Your task to perform on an android device: Open Amazon Image 0: 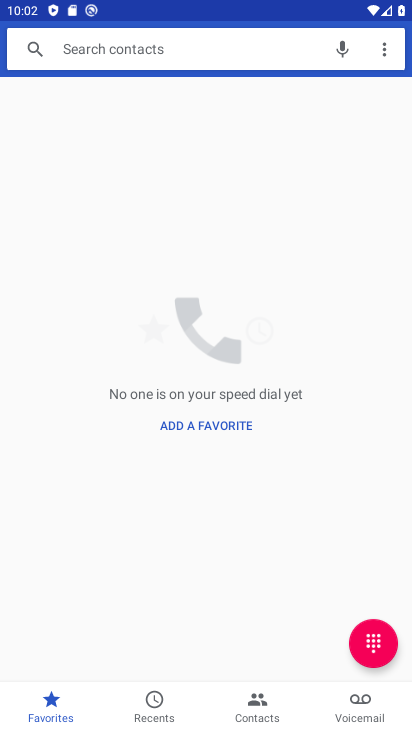
Step 0: click (221, 44)
Your task to perform on an android device: Open Amazon Image 1: 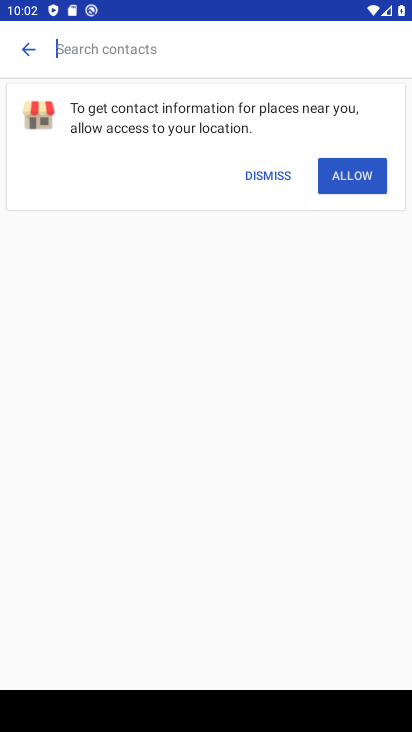
Step 1: press home button
Your task to perform on an android device: Open Amazon Image 2: 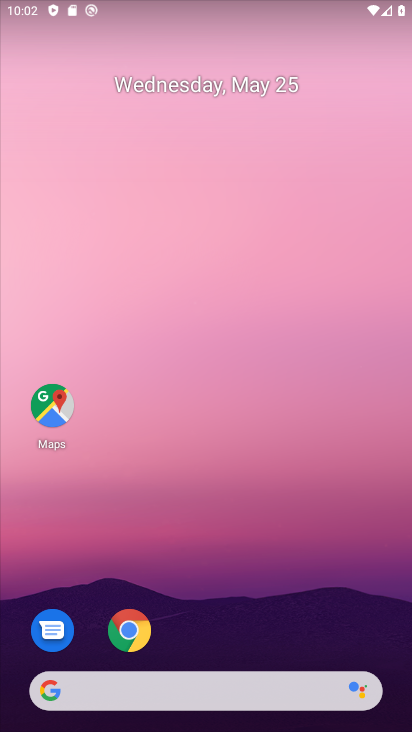
Step 2: click (125, 624)
Your task to perform on an android device: Open Amazon Image 3: 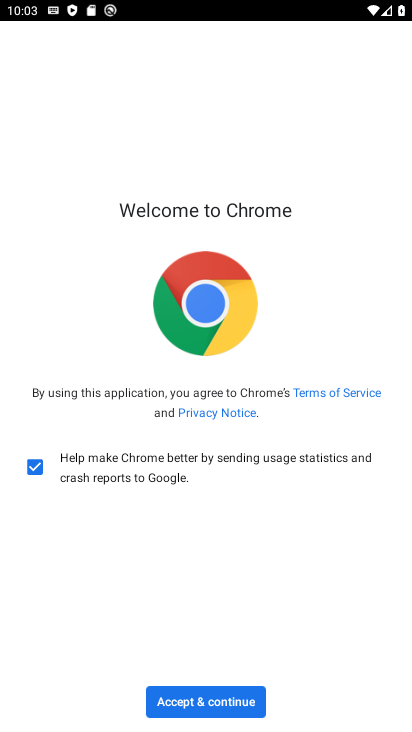
Step 3: click (158, 690)
Your task to perform on an android device: Open Amazon Image 4: 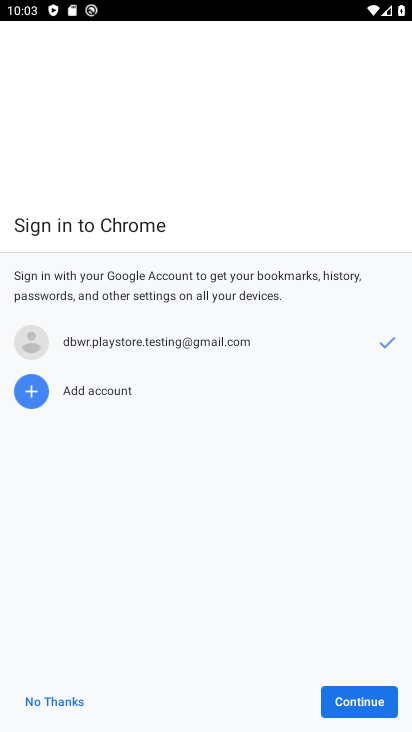
Step 4: click (327, 702)
Your task to perform on an android device: Open Amazon Image 5: 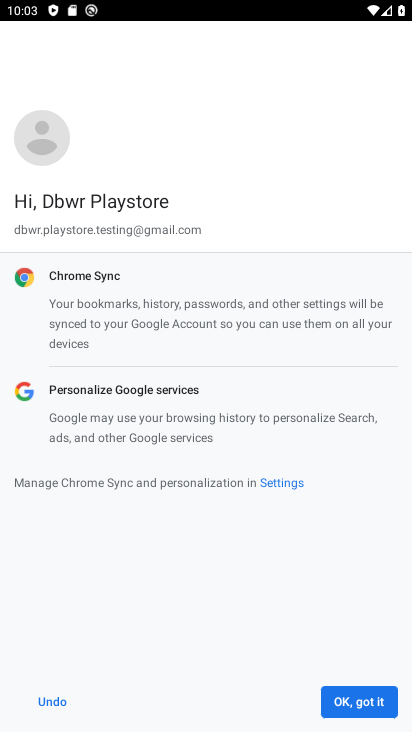
Step 5: click (336, 702)
Your task to perform on an android device: Open Amazon Image 6: 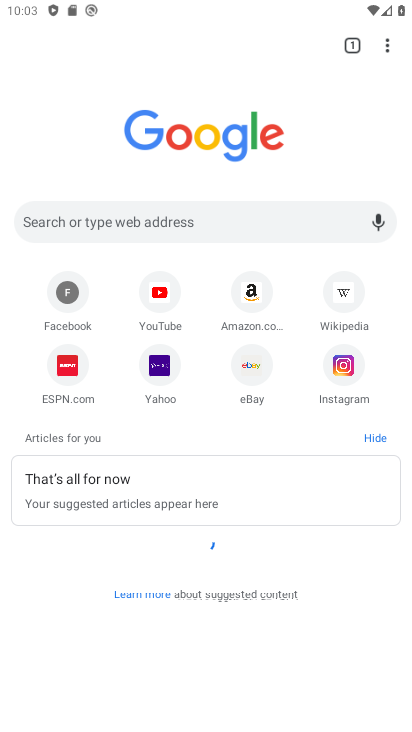
Step 6: click (218, 229)
Your task to perform on an android device: Open Amazon Image 7: 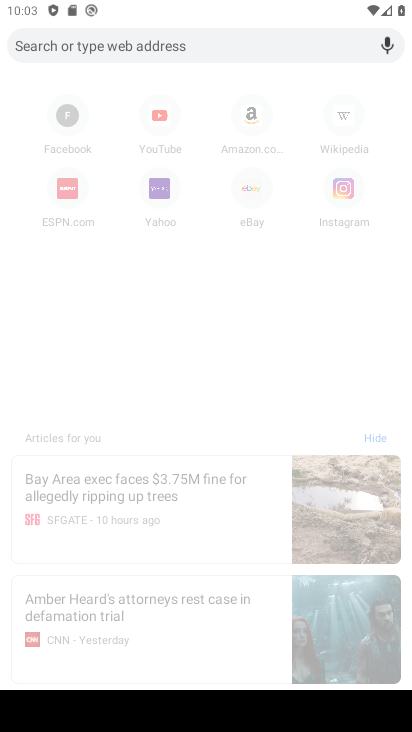
Step 7: type "Amazon"
Your task to perform on an android device: Open Amazon Image 8: 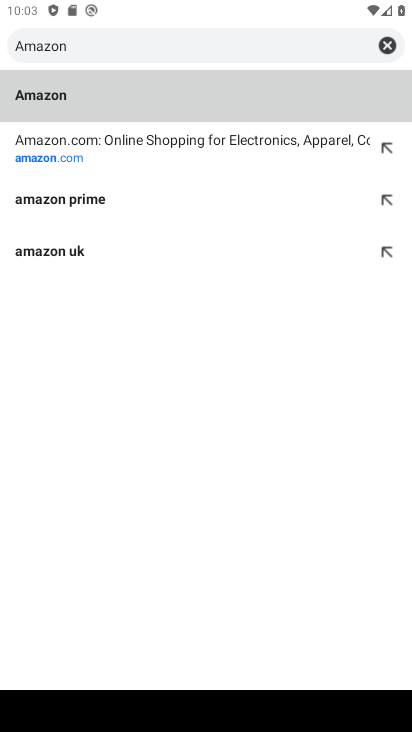
Step 8: click (58, 108)
Your task to perform on an android device: Open Amazon Image 9: 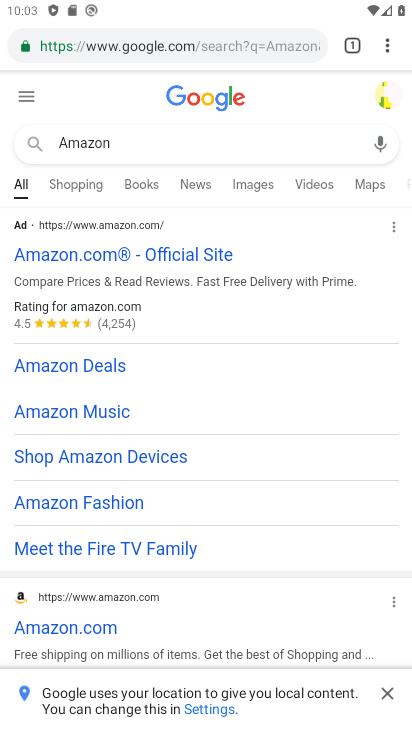
Step 9: task complete